Your task to perform on an android device: Go to sound settings Image 0: 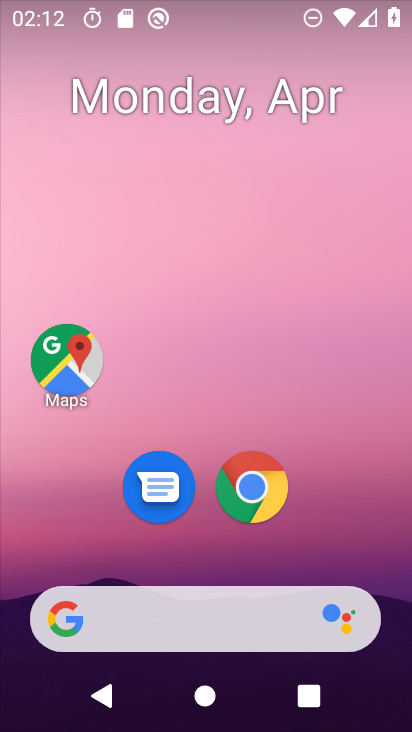
Step 0: drag from (344, 655) to (316, 186)
Your task to perform on an android device: Go to sound settings Image 1: 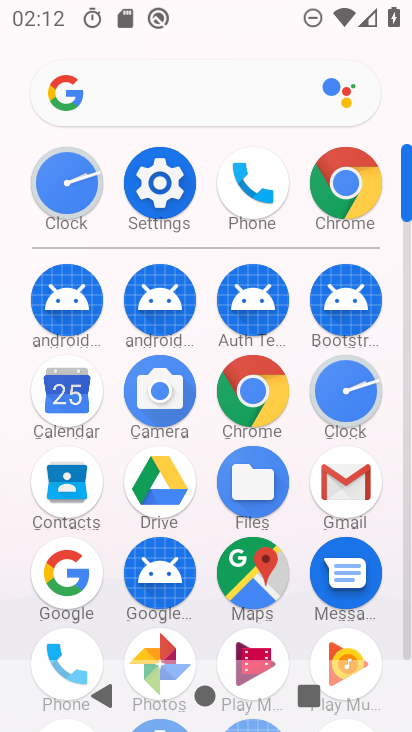
Step 1: click (171, 189)
Your task to perform on an android device: Go to sound settings Image 2: 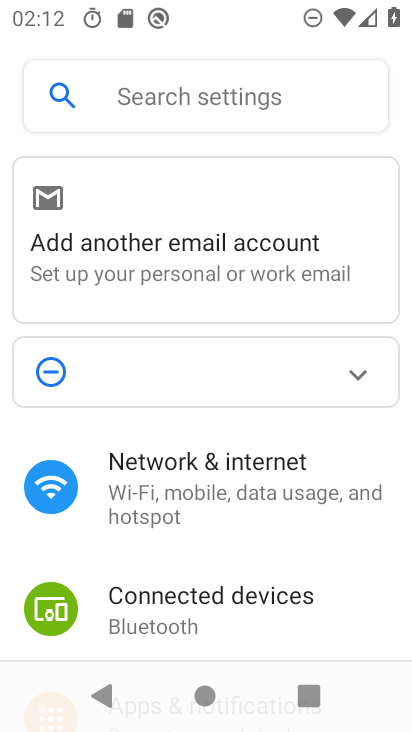
Step 2: click (186, 111)
Your task to perform on an android device: Go to sound settings Image 3: 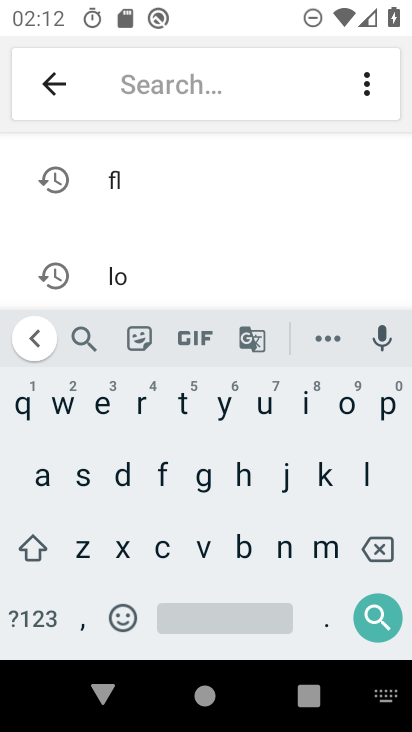
Step 3: click (82, 495)
Your task to perform on an android device: Go to sound settings Image 4: 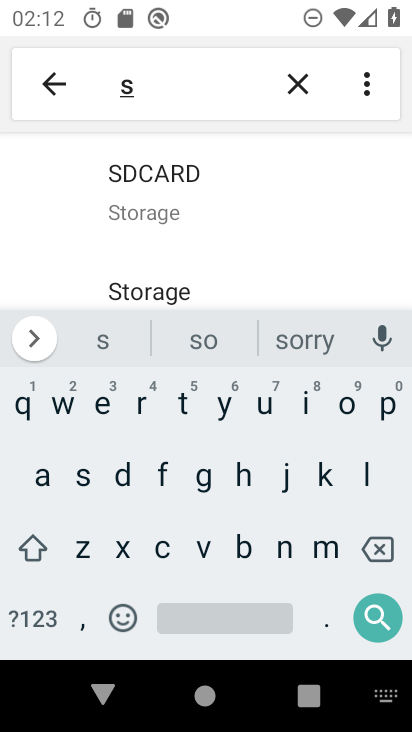
Step 4: click (346, 409)
Your task to perform on an android device: Go to sound settings Image 5: 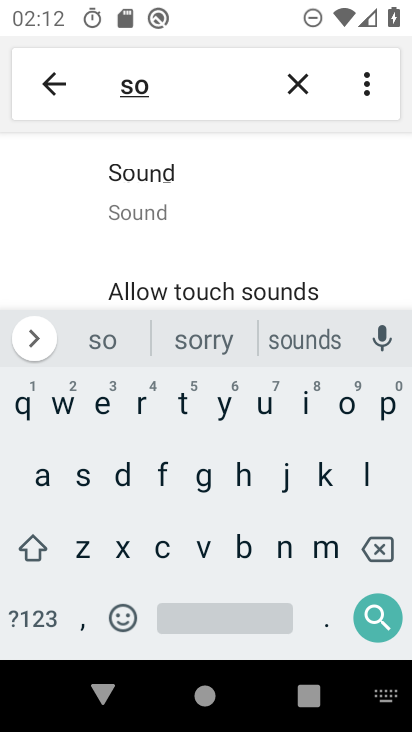
Step 5: click (181, 207)
Your task to perform on an android device: Go to sound settings Image 6: 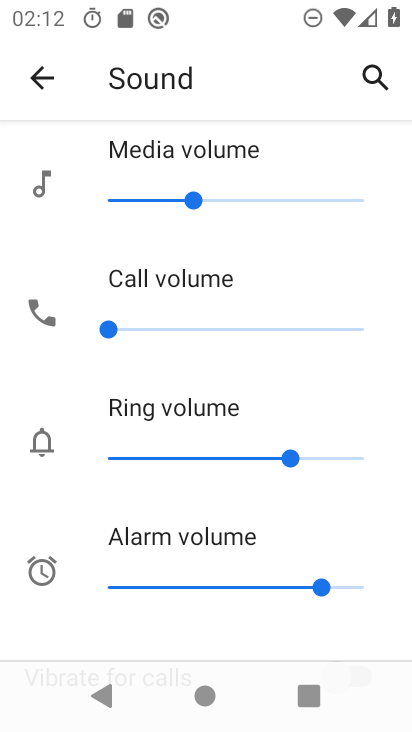
Step 6: task complete